Your task to perform on an android device: check google app version Image 0: 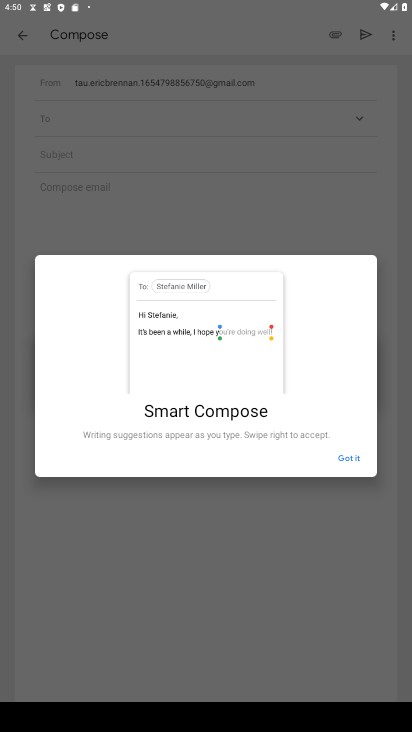
Step 0: press home button
Your task to perform on an android device: check google app version Image 1: 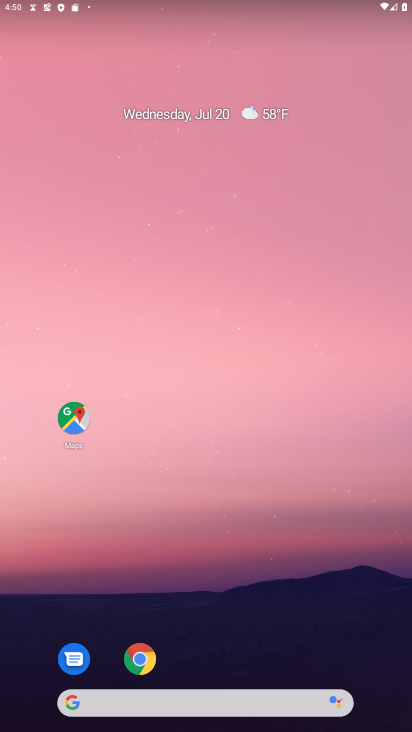
Step 1: drag from (280, 699) to (359, 9)
Your task to perform on an android device: check google app version Image 2: 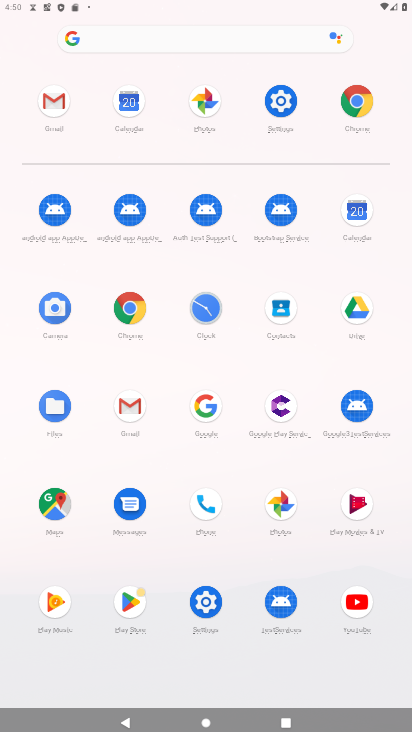
Step 2: click (136, 302)
Your task to perform on an android device: check google app version Image 3: 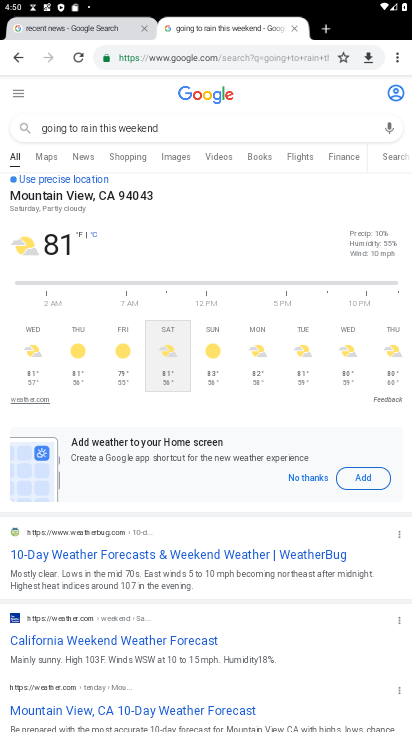
Step 3: drag from (398, 54) to (296, 373)
Your task to perform on an android device: check google app version Image 4: 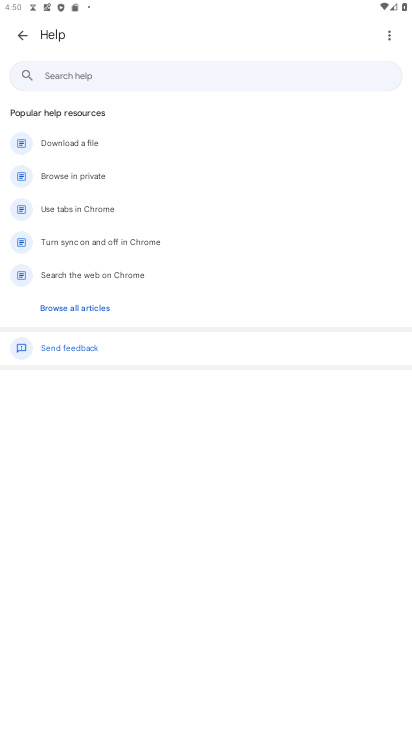
Step 4: click (392, 33)
Your task to perform on an android device: check google app version Image 5: 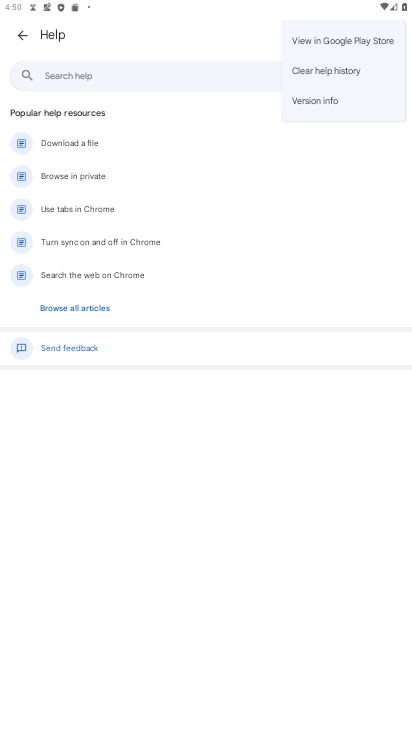
Step 5: click (344, 102)
Your task to perform on an android device: check google app version Image 6: 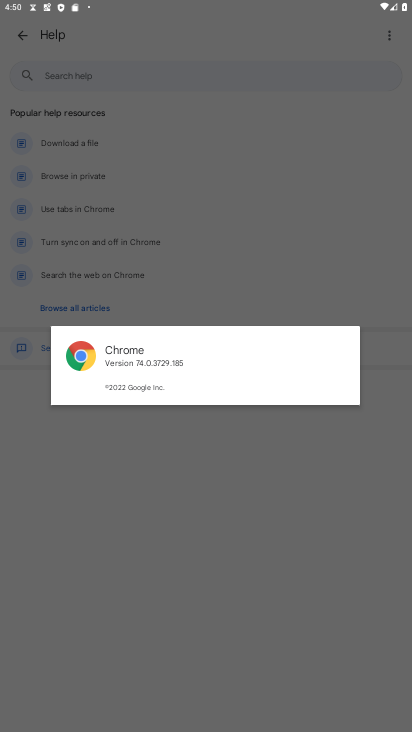
Step 6: task complete